Your task to perform on an android device: What is the news today? Image 0: 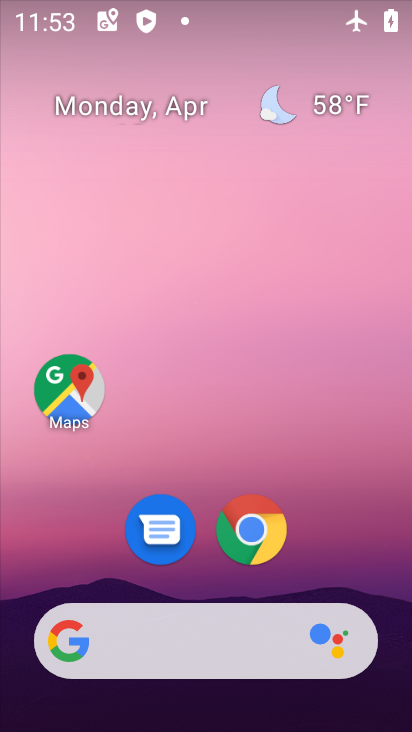
Step 0: drag from (394, 608) to (230, 46)
Your task to perform on an android device: What is the news today? Image 1: 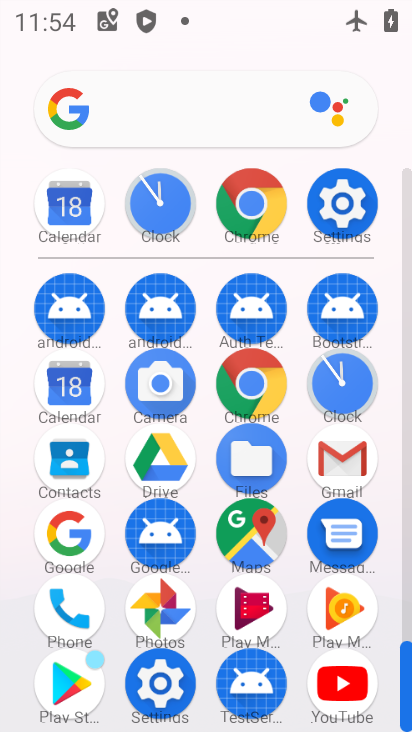
Step 1: click (241, 397)
Your task to perform on an android device: What is the news today? Image 2: 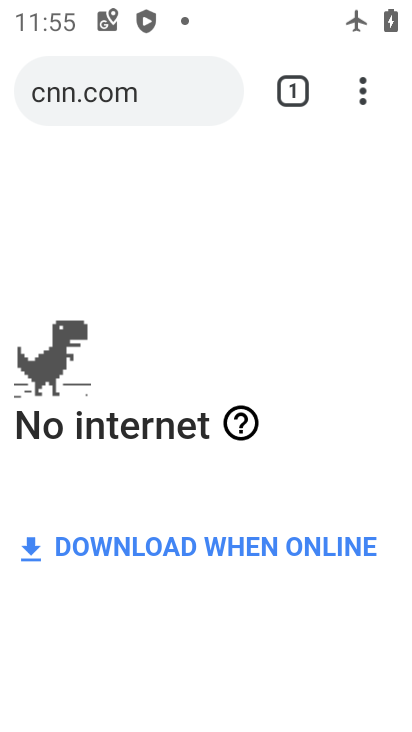
Step 2: task complete